Your task to perform on an android device: Open settings on Google Maps Image 0: 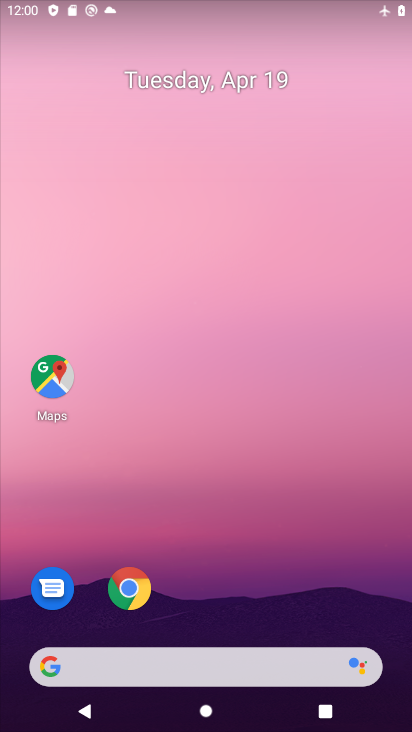
Step 0: drag from (374, 559) to (337, 25)
Your task to perform on an android device: Open settings on Google Maps Image 1: 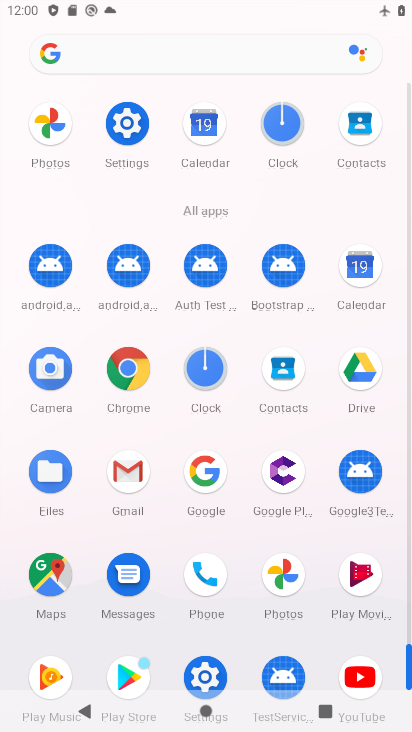
Step 1: click (48, 583)
Your task to perform on an android device: Open settings on Google Maps Image 2: 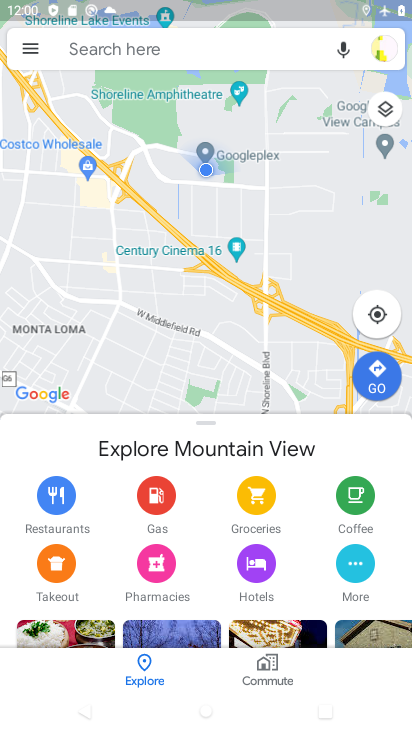
Step 2: click (33, 48)
Your task to perform on an android device: Open settings on Google Maps Image 3: 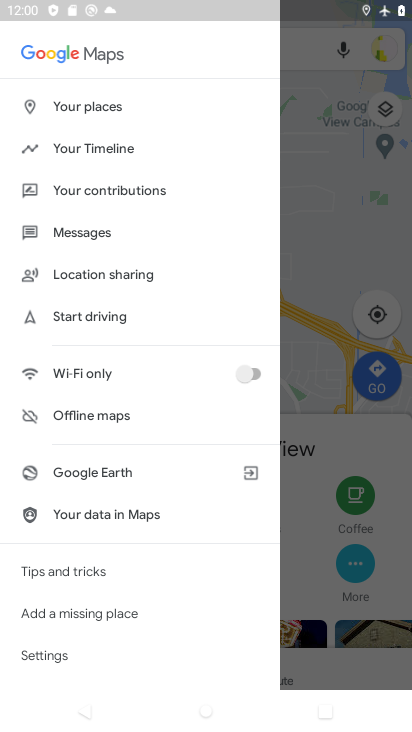
Step 3: click (44, 658)
Your task to perform on an android device: Open settings on Google Maps Image 4: 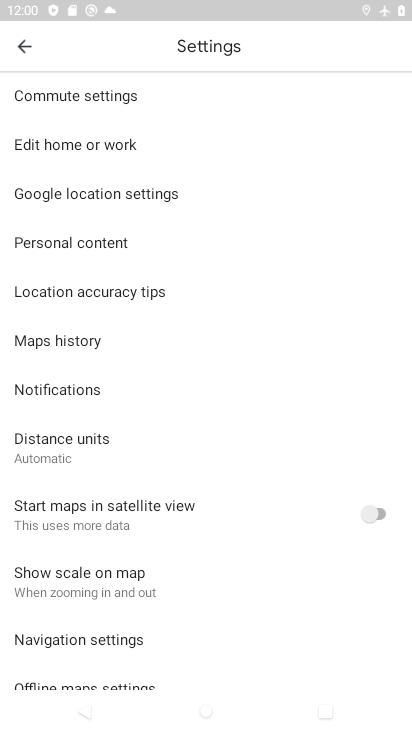
Step 4: task complete